Your task to perform on an android device: Open calendar and show me the third week of next month Image 0: 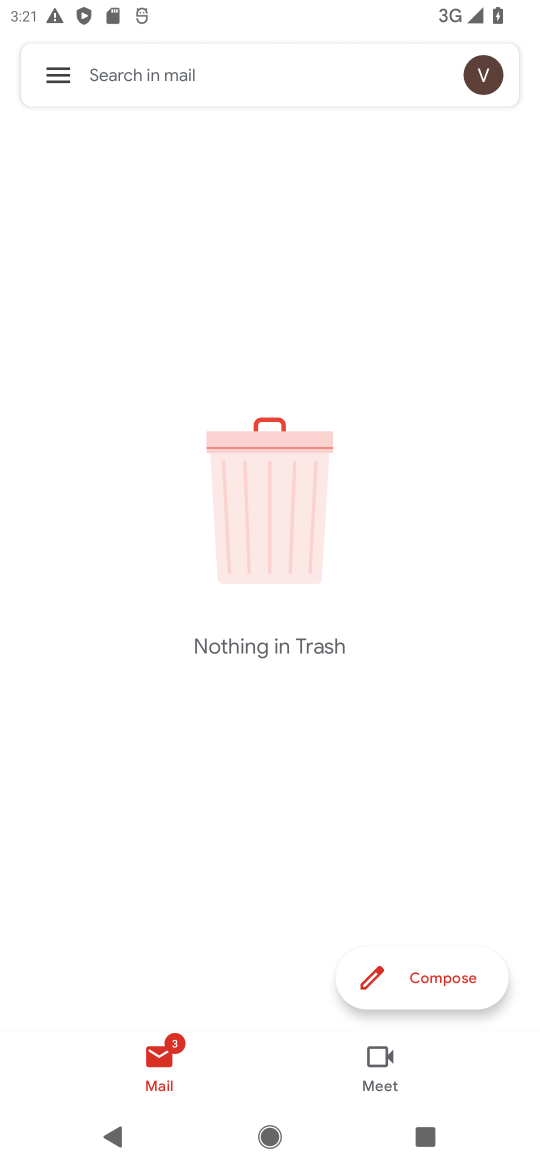
Step 0: task complete